Your task to perform on an android device: Go to Google maps Image 0: 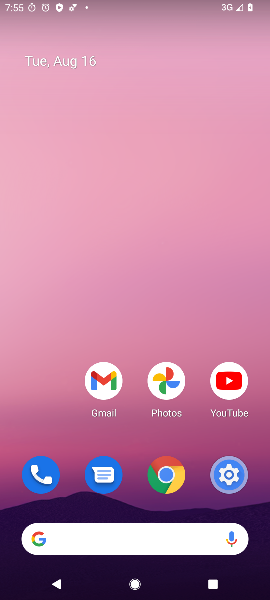
Step 0: drag from (253, 504) to (116, 55)
Your task to perform on an android device: Go to Google maps Image 1: 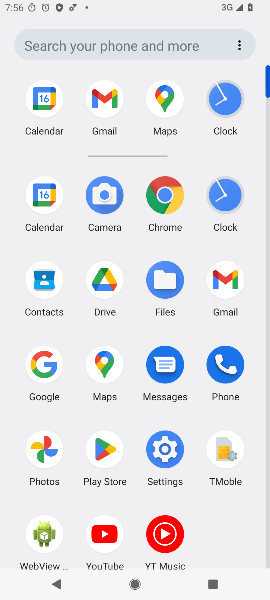
Step 1: click (93, 369)
Your task to perform on an android device: Go to Google maps Image 2: 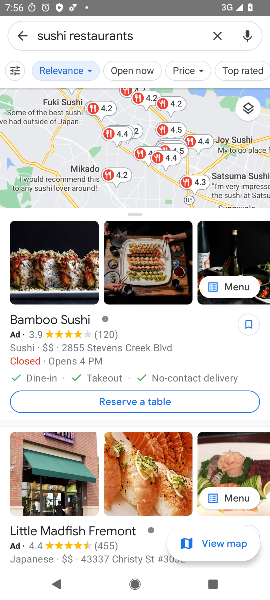
Step 2: click (219, 34)
Your task to perform on an android device: Go to Google maps Image 3: 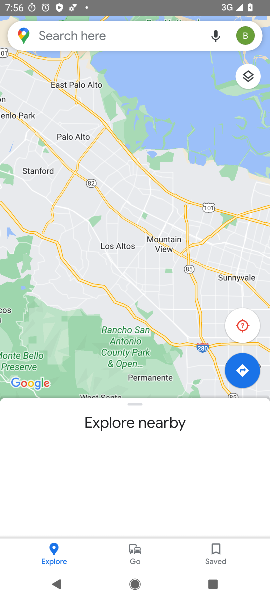
Step 3: task complete